Your task to perform on an android device: turn on javascript in the chrome app Image 0: 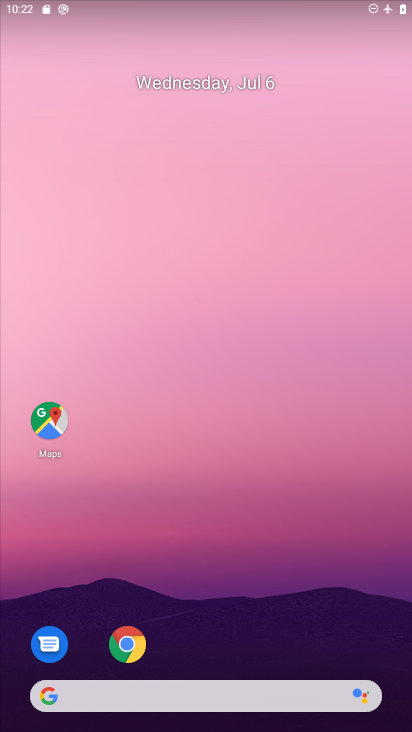
Step 0: click (142, 638)
Your task to perform on an android device: turn on javascript in the chrome app Image 1: 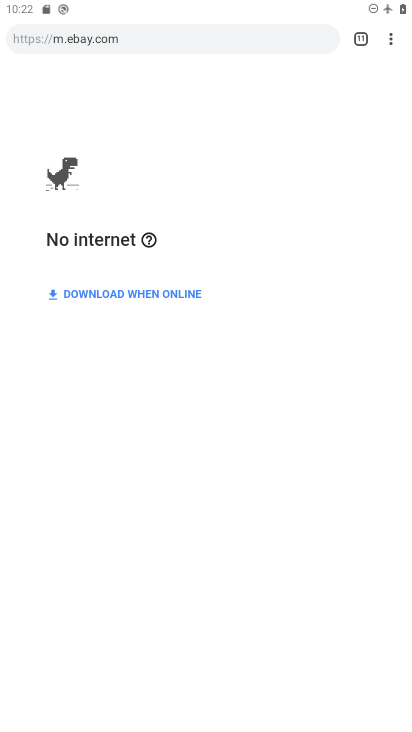
Step 1: click (388, 29)
Your task to perform on an android device: turn on javascript in the chrome app Image 2: 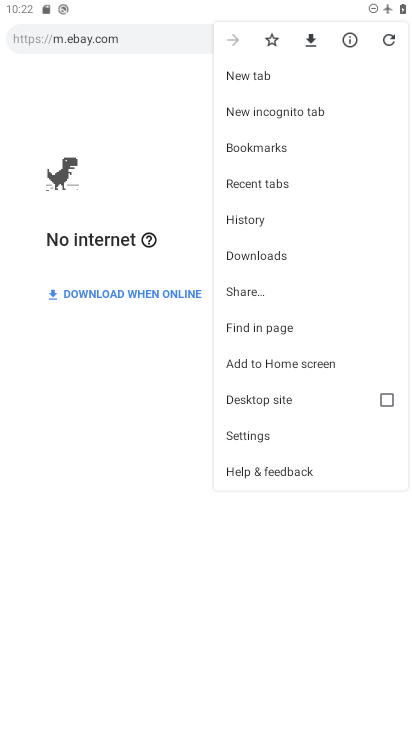
Step 2: click (237, 429)
Your task to perform on an android device: turn on javascript in the chrome app Image 3: 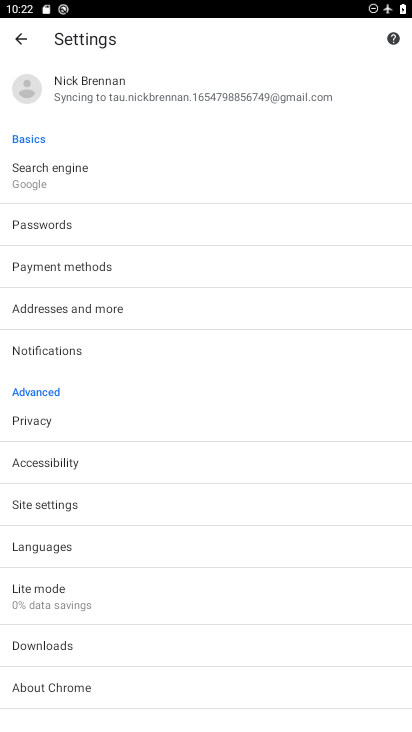
Step 3: click (75, 515)
Your task to perform on an android device: turn on javascript in the chrome app Image 4: 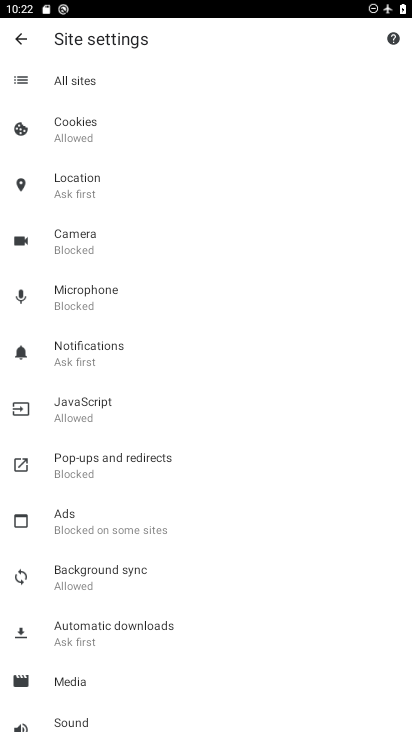
Step 4: click (112, 422)
Your task to perform on an android device: turn on javascript in the chrome app Image 5: 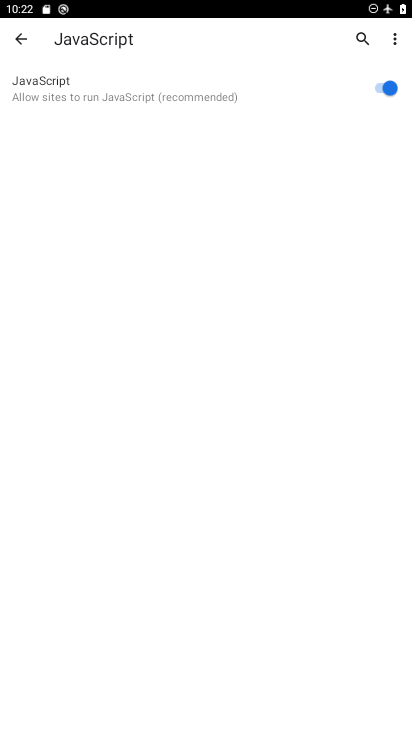
Step 5: task complete